Your task to perform on an android device: change alarm snooze length Image 0: 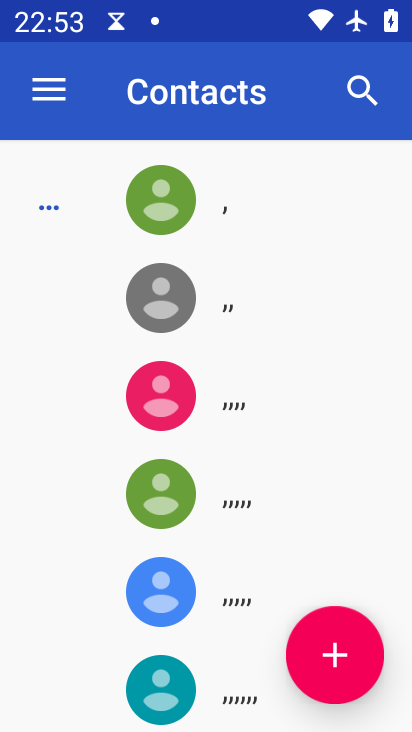
Step 0: press home button
Your task to perform on an android device: change alarm snooze length Image 1: 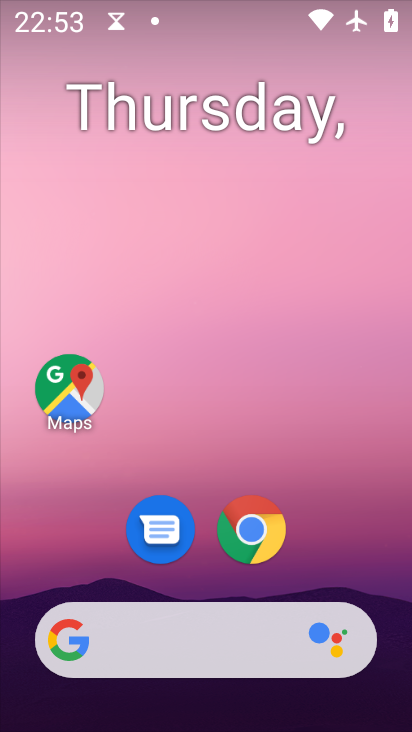
Step 1: drag from (335, 583) to (284, 1)
Your task to perform on an android device: change alarm snooze length Image 2: 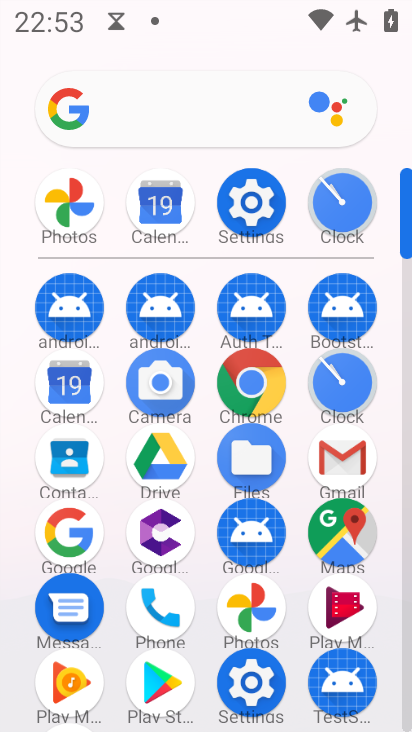
Step 2: click (347, 392)
Your task to perform on an android device: change alarm snooze length Image 3: 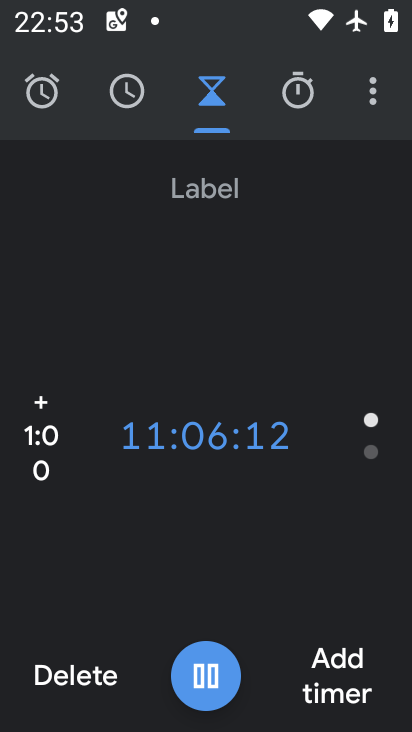
Step 3: click (371, 87)
Your task to perform on an android device: change alarm snooze length Image 4: 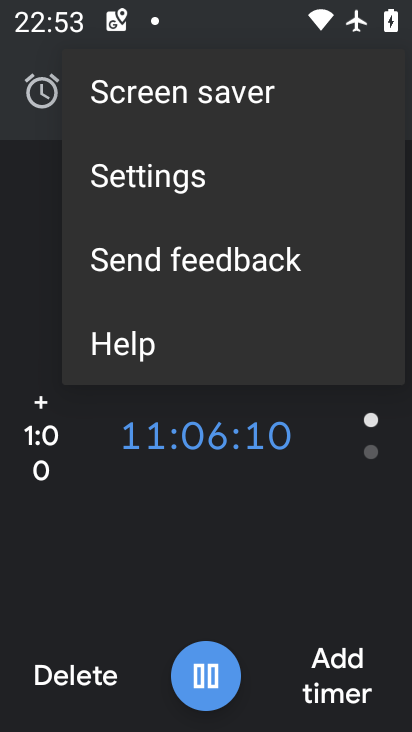
Step 4: click (200, 182)
Your task to perform on an android device: change alarm snooze length Image 5: 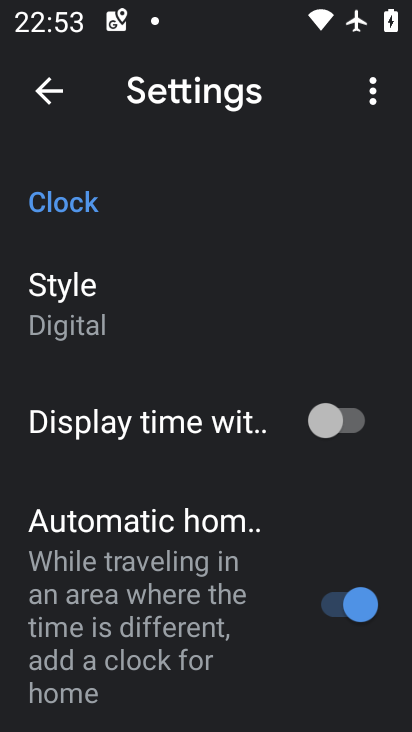
Step 5: drag from (154, 543) to (141, 201)
Your task to perform on an android device: change alarm snooze length Image 6: 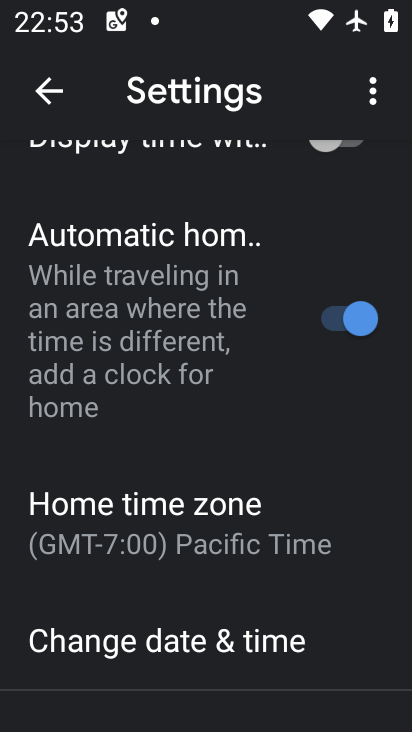
Step 6: drag from (156, 456) to (120, 169)
Your task to perform on an android device: change alarm snooze length Image 7: 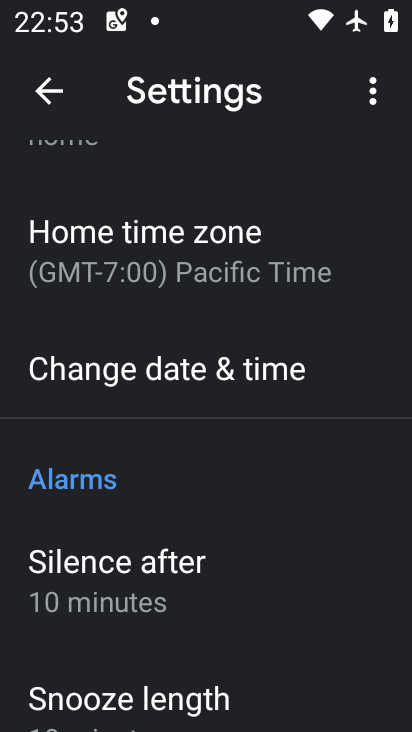
Step 7: drag from (177, 483) to (208, 249)
Your task to perform on an android device: change alarm snooze length Image 8: 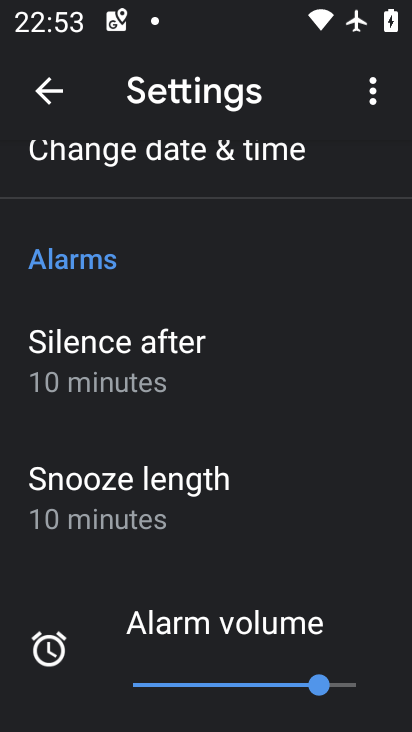
Step 8: click (95, 484)
Your task to perform on an android device: change alarm snooze length Image 9: 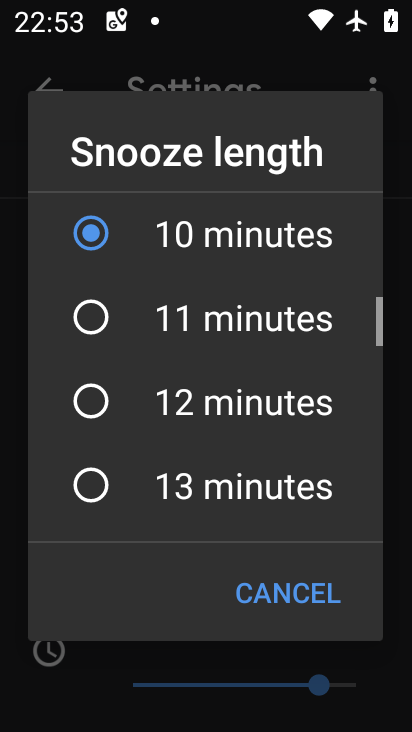
Step 9: click (207, 316)
Your task to perform on an android device: change alarm snooze length Image 10: 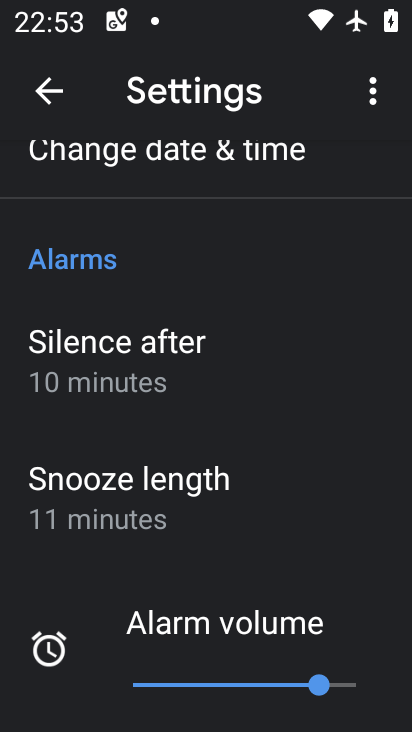
Step 10: task complete